Your task to perform on an android device: Open Google Image 0: 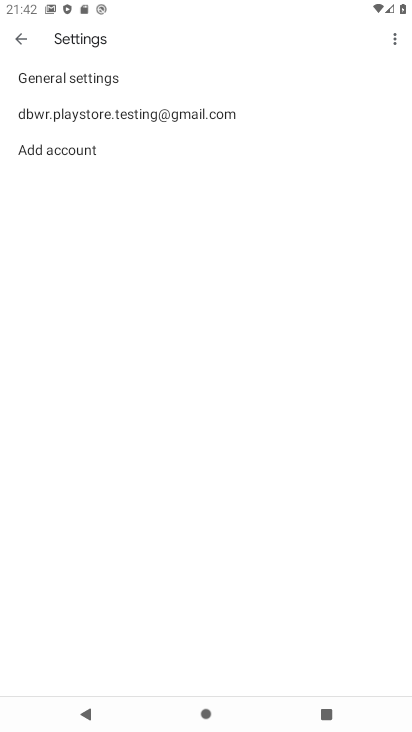
Step 0: press home button
Your task to perform on an android device: Open Google Image 1: 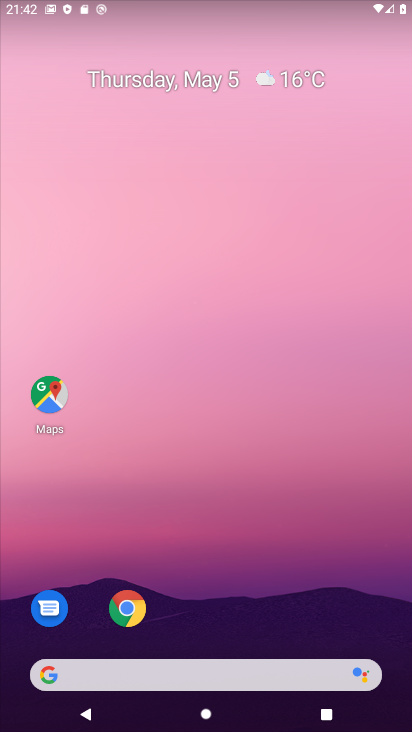
Step 1: drag from (212, 639) to (213, 77)
Your task to perform on an android device: Open Google Image 2: 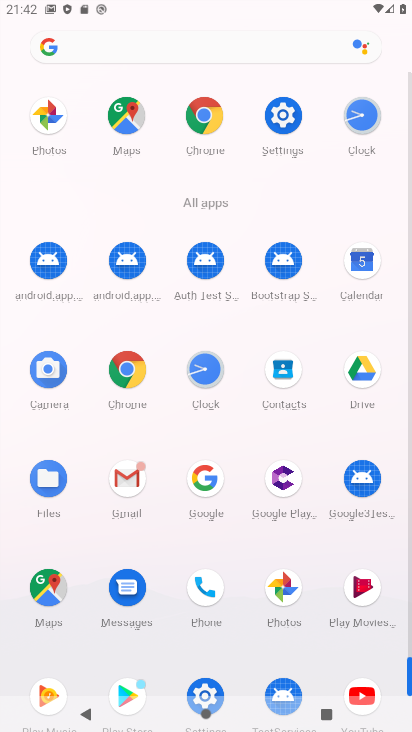
Step 2: drag from (242, 236) to (254, 9)
Your task to perform on an android device: Open Google Image 3: 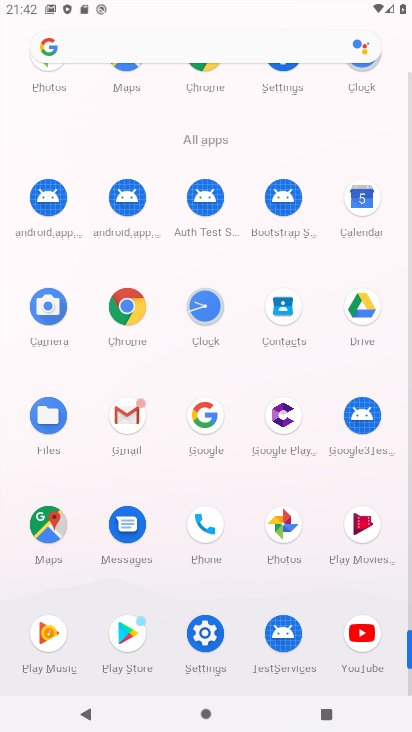
Step 3: click (199, 413)
Your task to perform on an android device: Open Google Image 4: 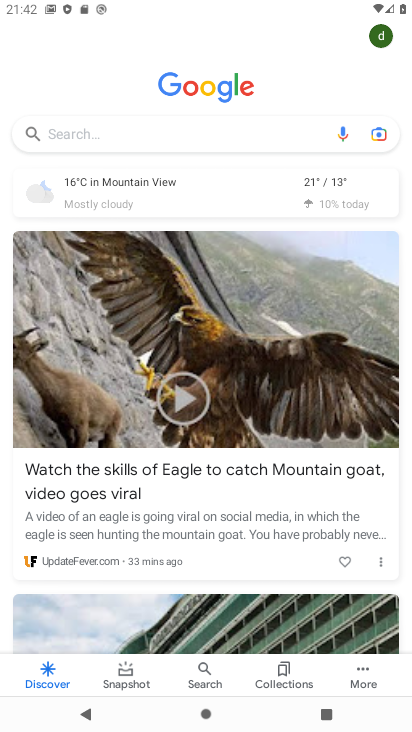
Step 4: task complete